Your task to perform on an android device: Go to Yahoo.com Image 0: 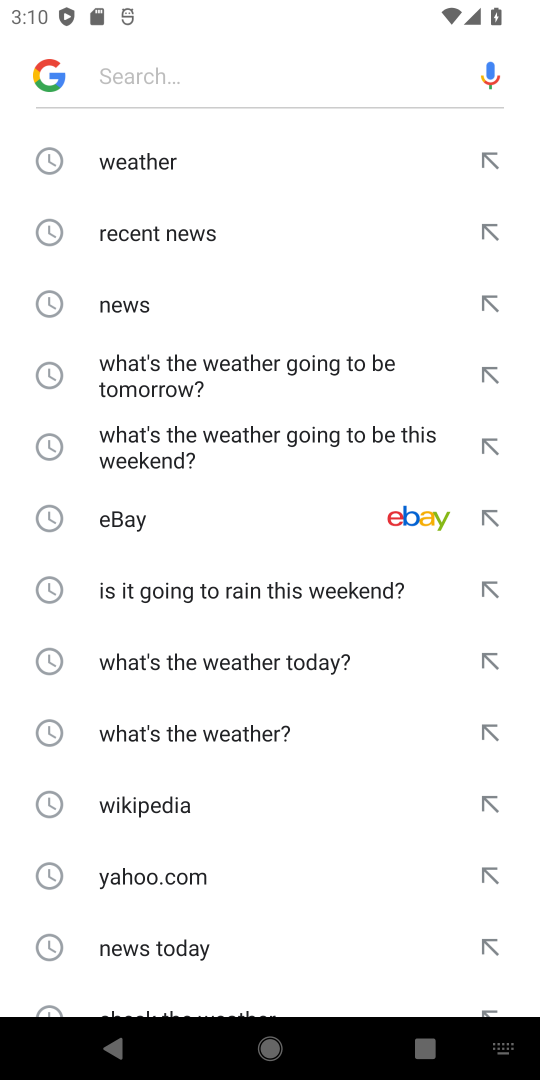
Step 0: drag from (251, 719) to (246, 422)
Your task to perform on an android device: Go to Yahoo.com Image 1: 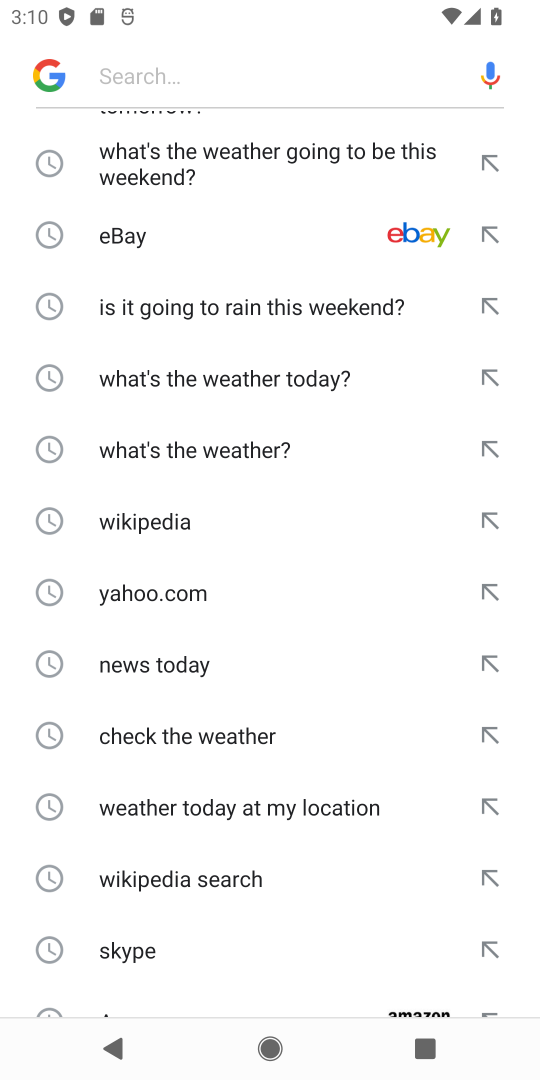
Step 1: click (192, 603)
Your task to perform on an android device: Go to Yahoo.com Image 2: 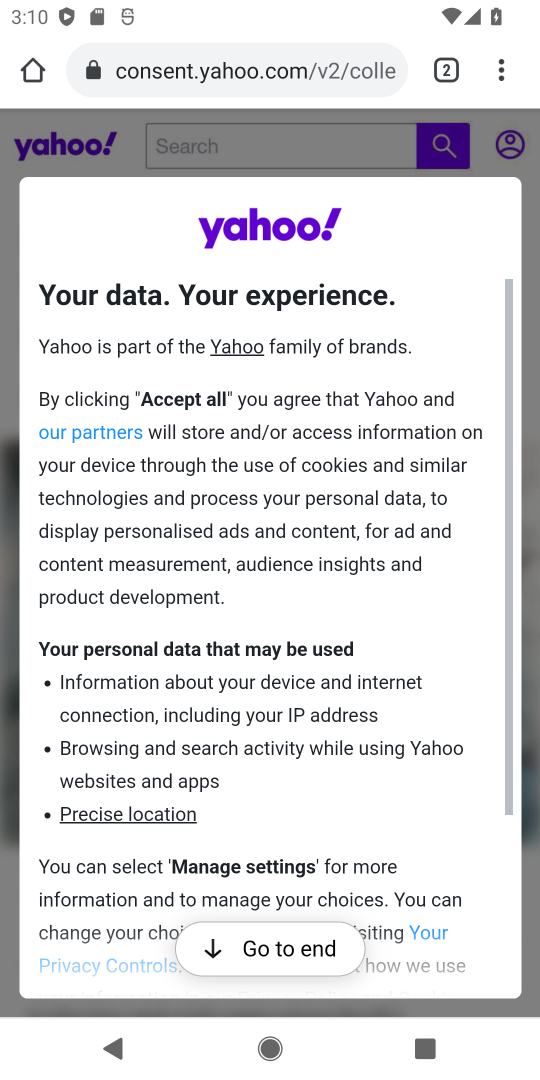
Step 2: task complete